Your task to perform on an android device: Open internet settings Image 0: 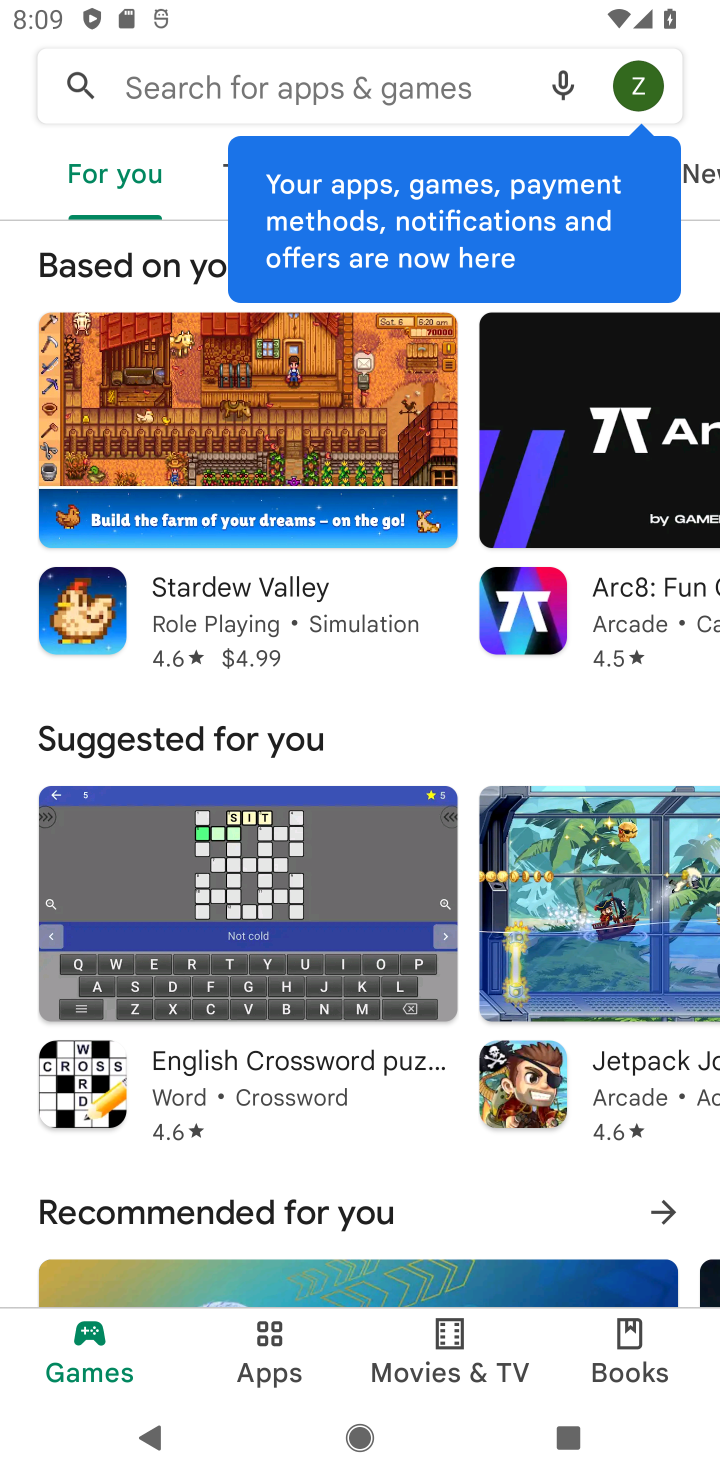
Step 0: task complete